Your task to perform on an android device: Open Yahoo.com Image 0: 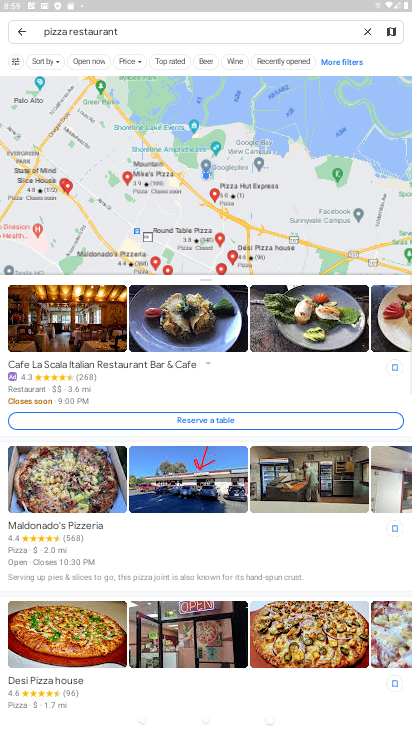
Step 0: press home button
Your task to perform on an android device: Open Yahoo.com Image 1: 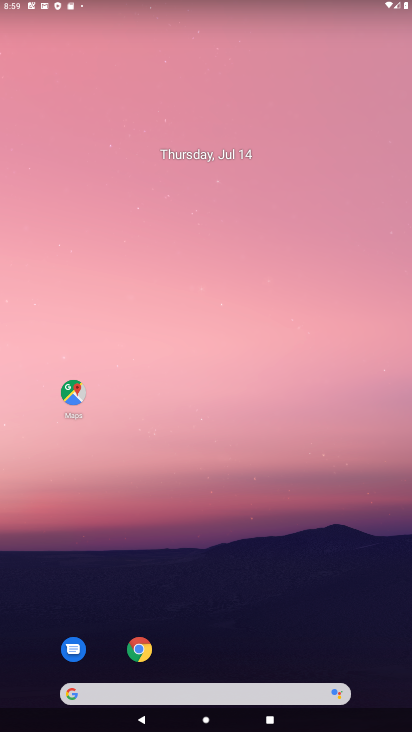
Step 1: click (137, 654)
Your task to perform on an android device: Open Yahoo.com Image 2: 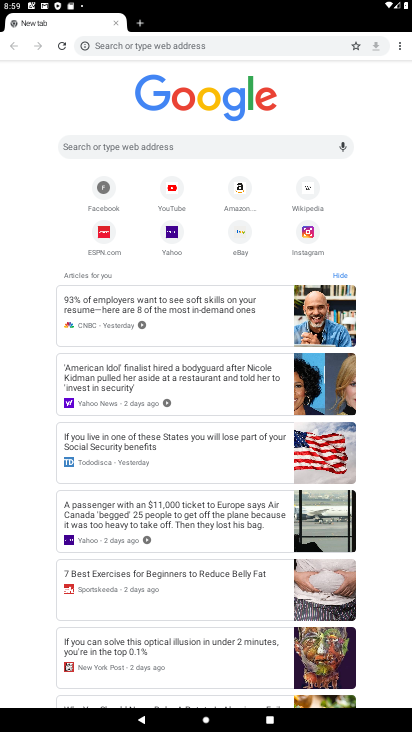
Step 2: click (169, 242)
Your task to perform on an android device: Open Yahoo.com Image 3: 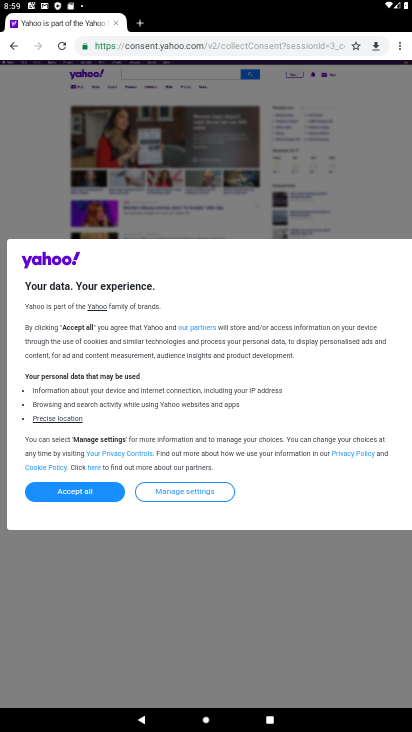
Step 3: task complete